Your task to perform on an android device: toggle sleep mode Image 0: 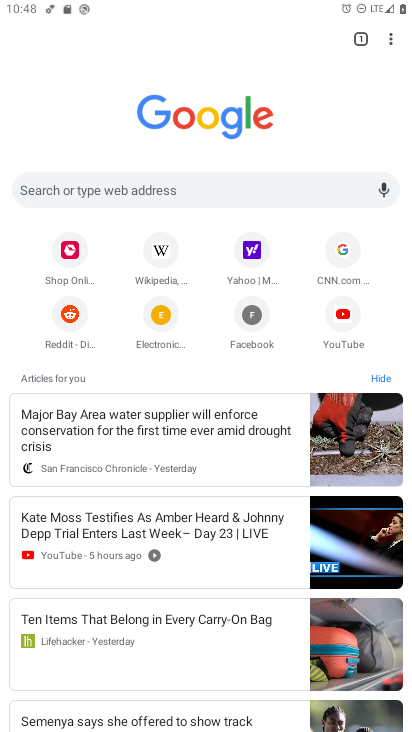
Step 0: click (389, 34)
Your task to perform on an android device: toggle sleep mode Image 1: 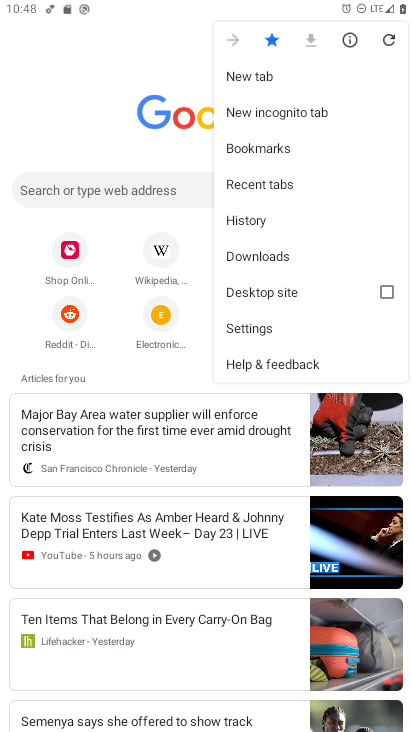
Step 1: press home button
Your task to perform on an android device: toggle sleep mode Image 2: 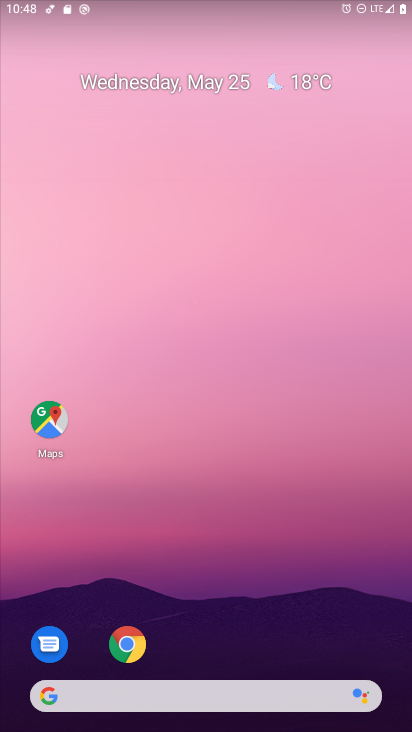
Step 2: drag from (203, 650) to (202, 28)
Your task to perform on an android device: toggle sleep mode Image 3: 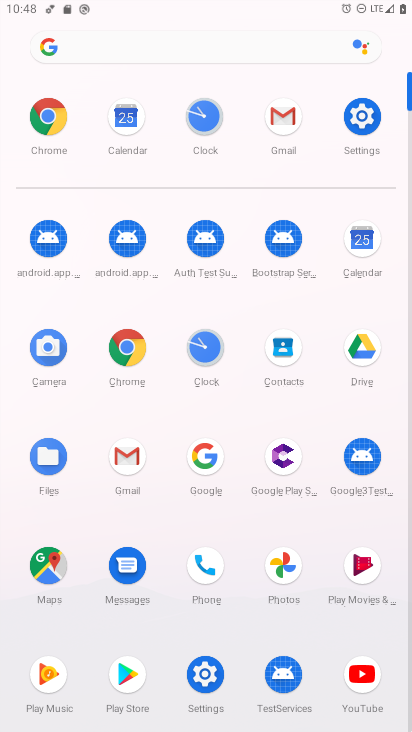
Step 3: click (358, 108)
Your task to perform on an android device: toggle sleep mode Image 4: 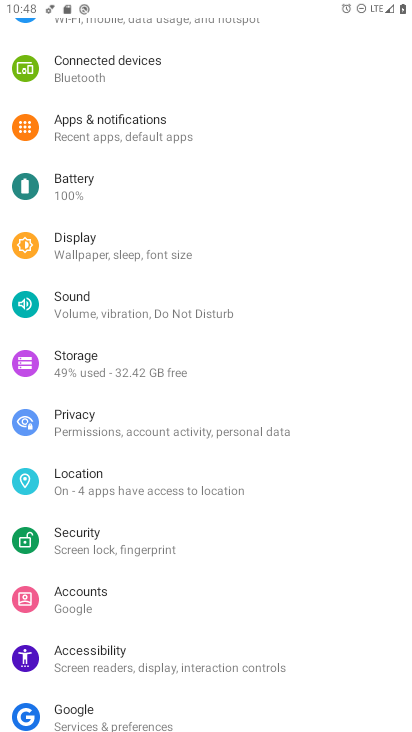
Step 4: click (118, 235)
Your task to perform on an android device: toggle sleep mode Image 5: 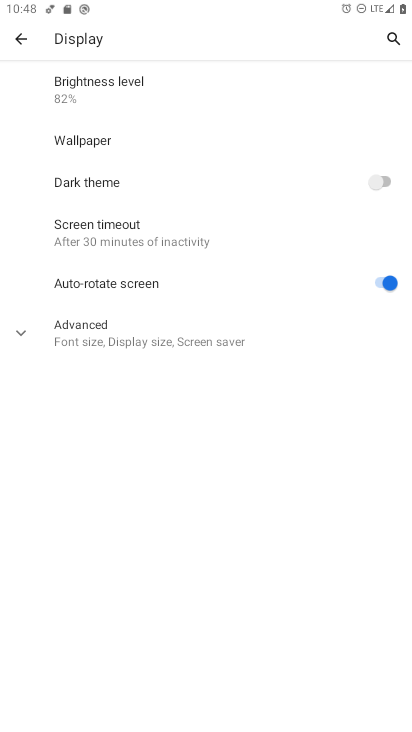
Step 5: click (19, 324)
Your task to perform on an android device: toggle sleep mode Image 6: 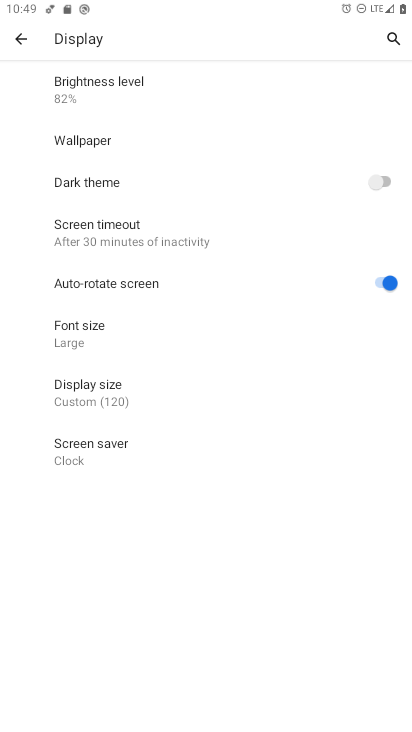
Step 6: task complete